Your task to perform on an android device: create a new album in the google photos Image 0: 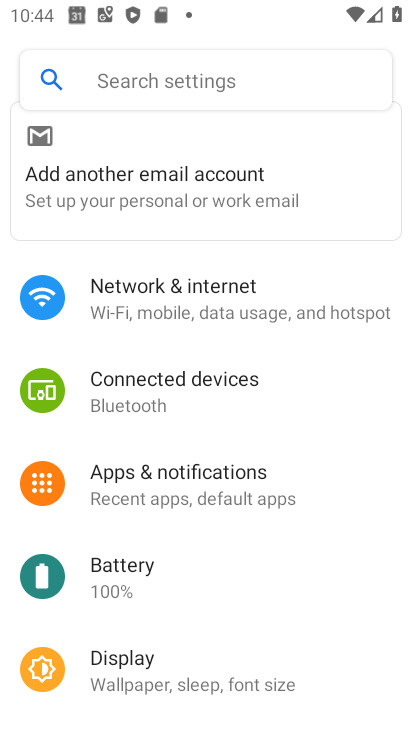
Step 0: press home button
Your task to perform on an android device: create a new album in the google photos Image 1: 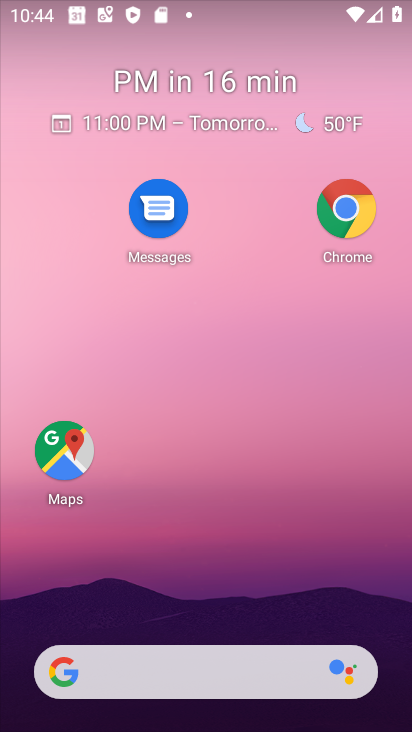
Step 1: drag from (214, 635) to (295, 37)
Your task to perform on an android device: create a new album in the google photos Image 2: 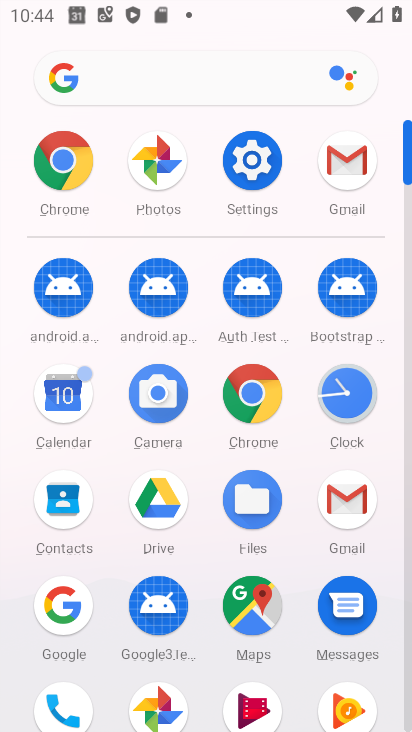
Step 2: click (147, 167)
Your task to perform on an android device: create a new album in the google photos Image 3: 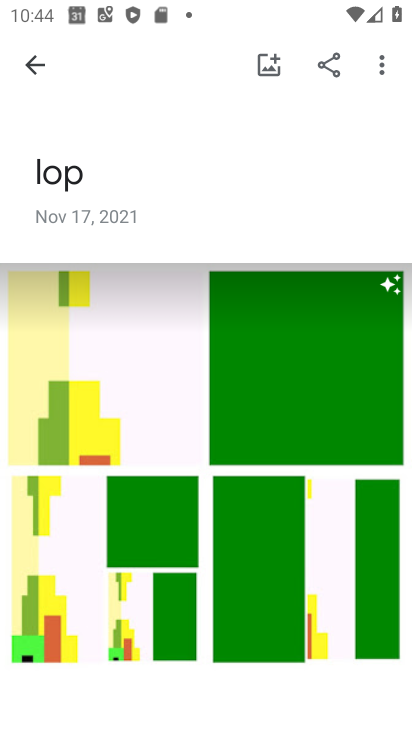
Step 3: click (34, 66)
Your task to perform on an android device: create a new album in the google photos Image 4: 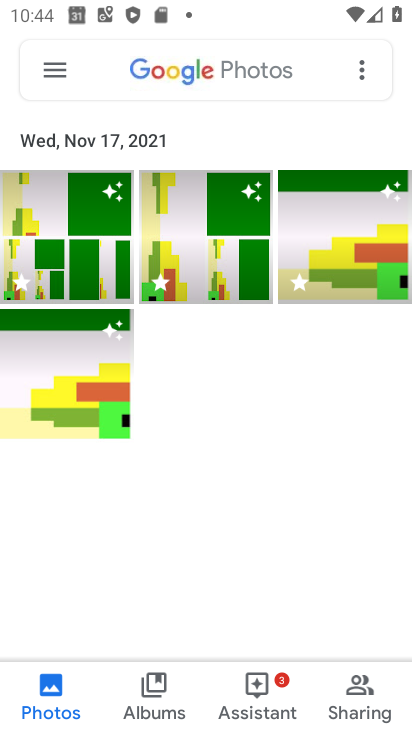
Step 4: click (87, 215)
Your task to perform on an android device: create a new album in the google photos Image 5: 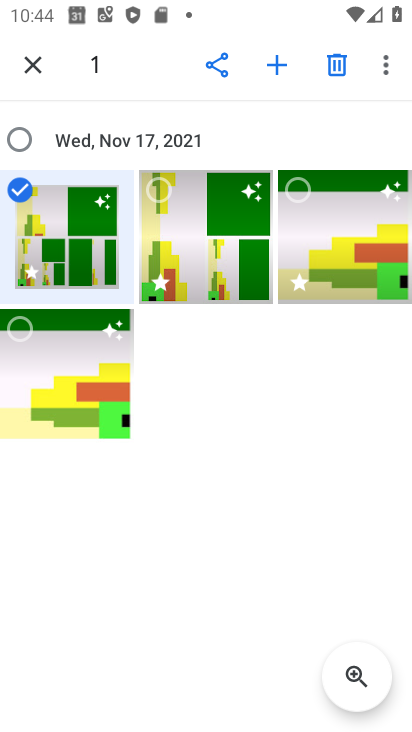
Step 5: click (215, 228)
Your task to perform on an android device: create a new album in the google photos Image 6: 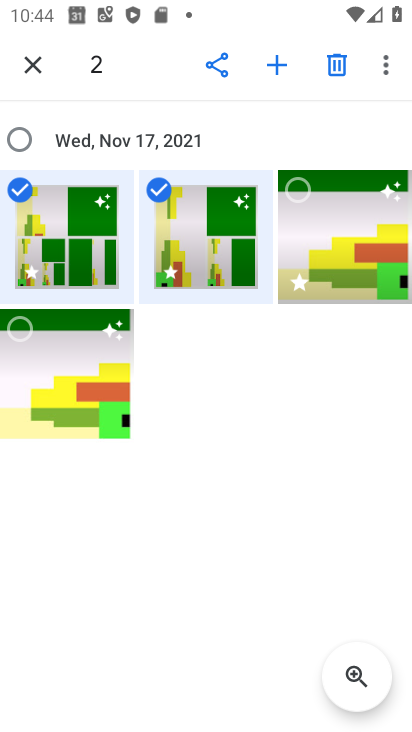
Step 6: click (270, 66)
Your task to perform on an android device: create a new album in the google photos Image 7: 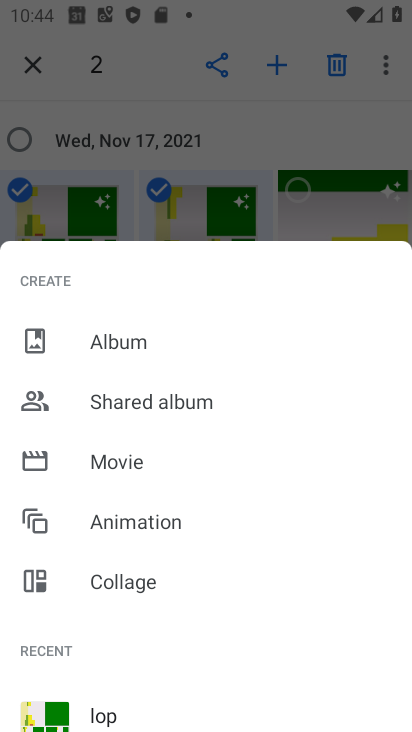
Step 7: click (123, 337)
Your task to perform on an android device: create a new album in the google photos Image 8: 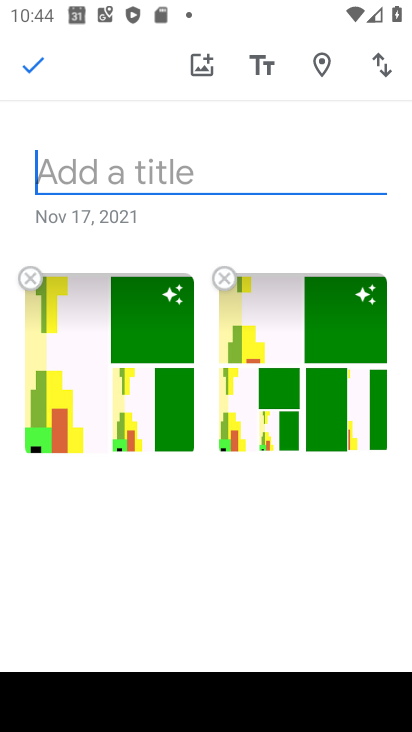
Step 8: type "mnnbv"
Your task to perform on an android device: create a new album in the google photos Image 9: 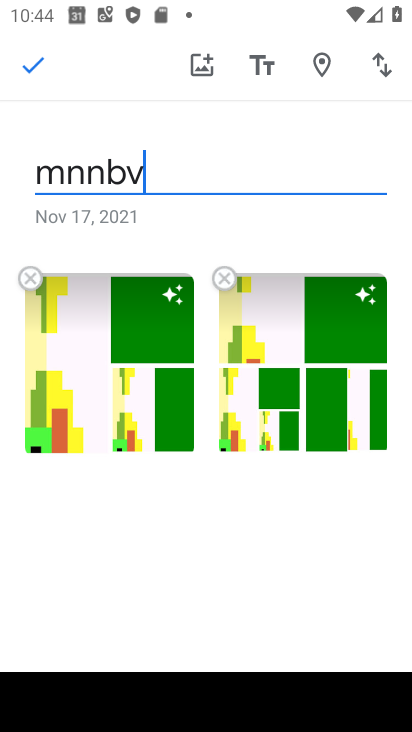
Step 9: type ""
Your task to perform on an android device: create a new album in the google photos Image 10: 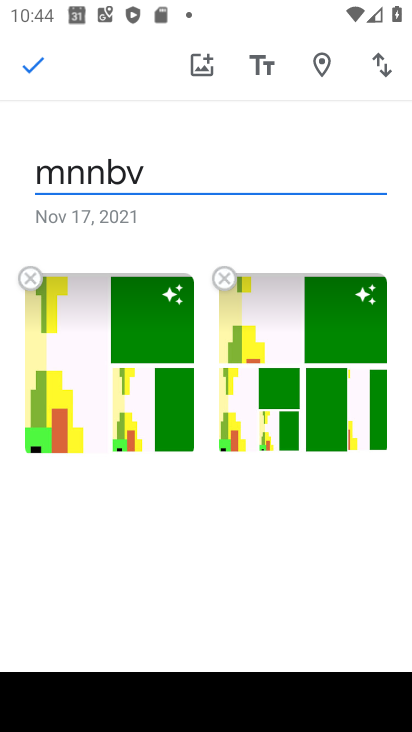
Step 10: click (23, 62)
Your task to perform on an android device: create a new album in the google photos Image 11: 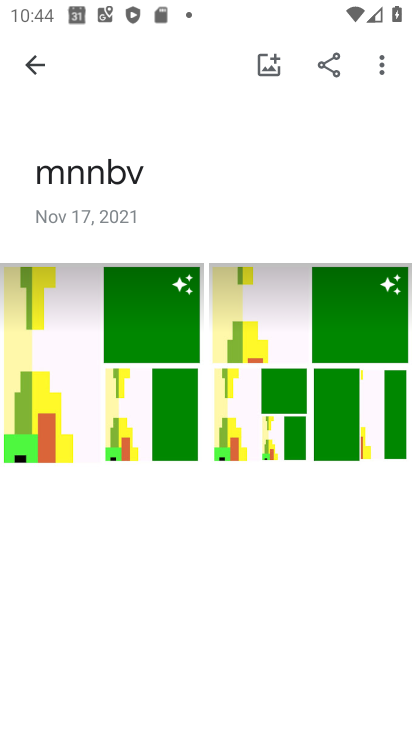
Step 11: task complete